Your task to perform on an android device: move a message to another label in the gmail app Image 0: 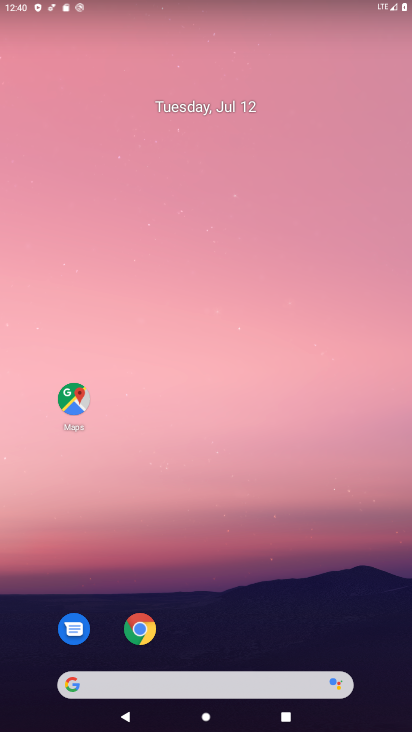
Step 0: drag from (224, 538) to (270, 37)
Your task to perform on an android device: move a message to another label in the gmail app Image 1: 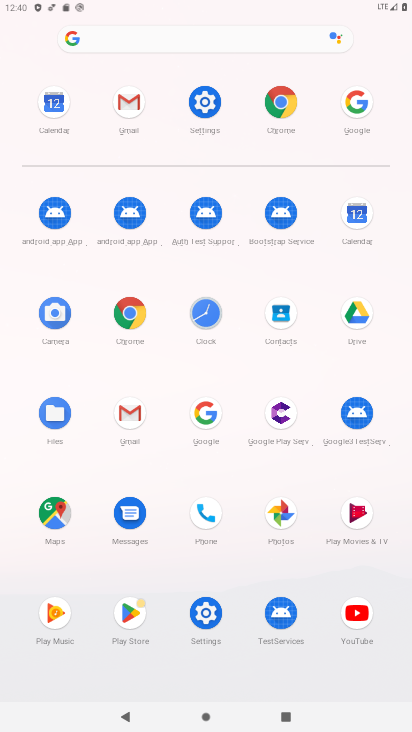
Step 1: click (128, 404)
Your task to perform on an android device: move a message to another label in the gmail app Image 2: 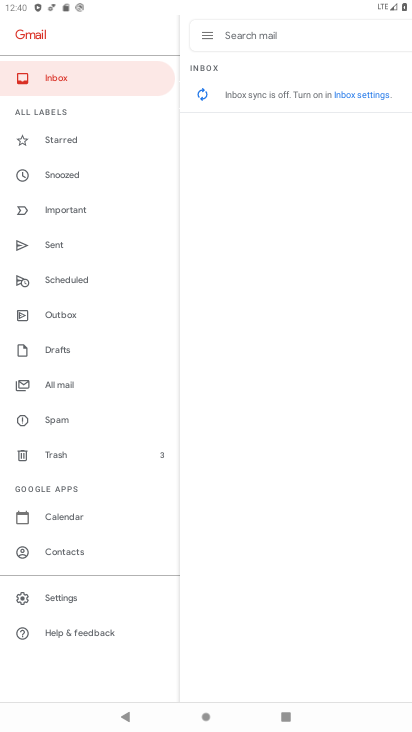
Step 2: click (131, 87)
Your task to perform on an android device: move a message to another label in the gmail app Image 3: 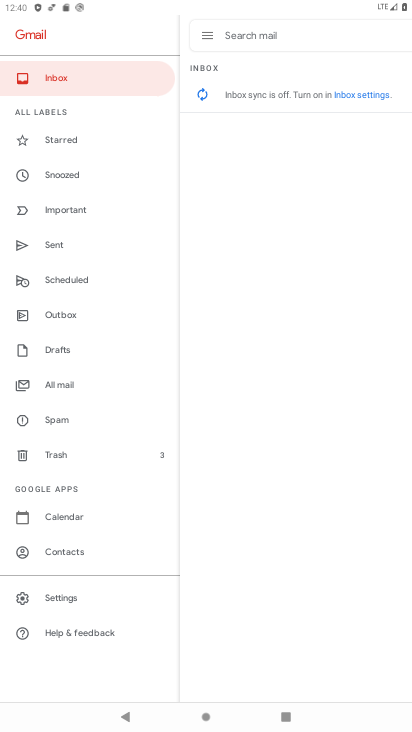
Step 3: click (102, 85)
Your task to perform on an android device: move a message to another label in the gmail app Image 4: 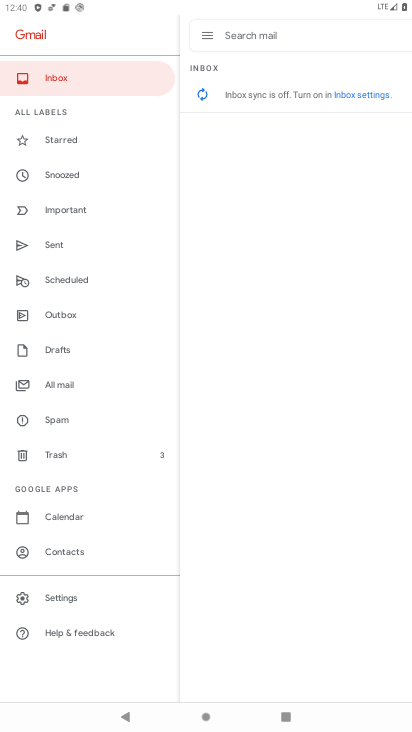
Step 4: task complete